Your task to perform on an android device: change the clock display to analog Image 0: 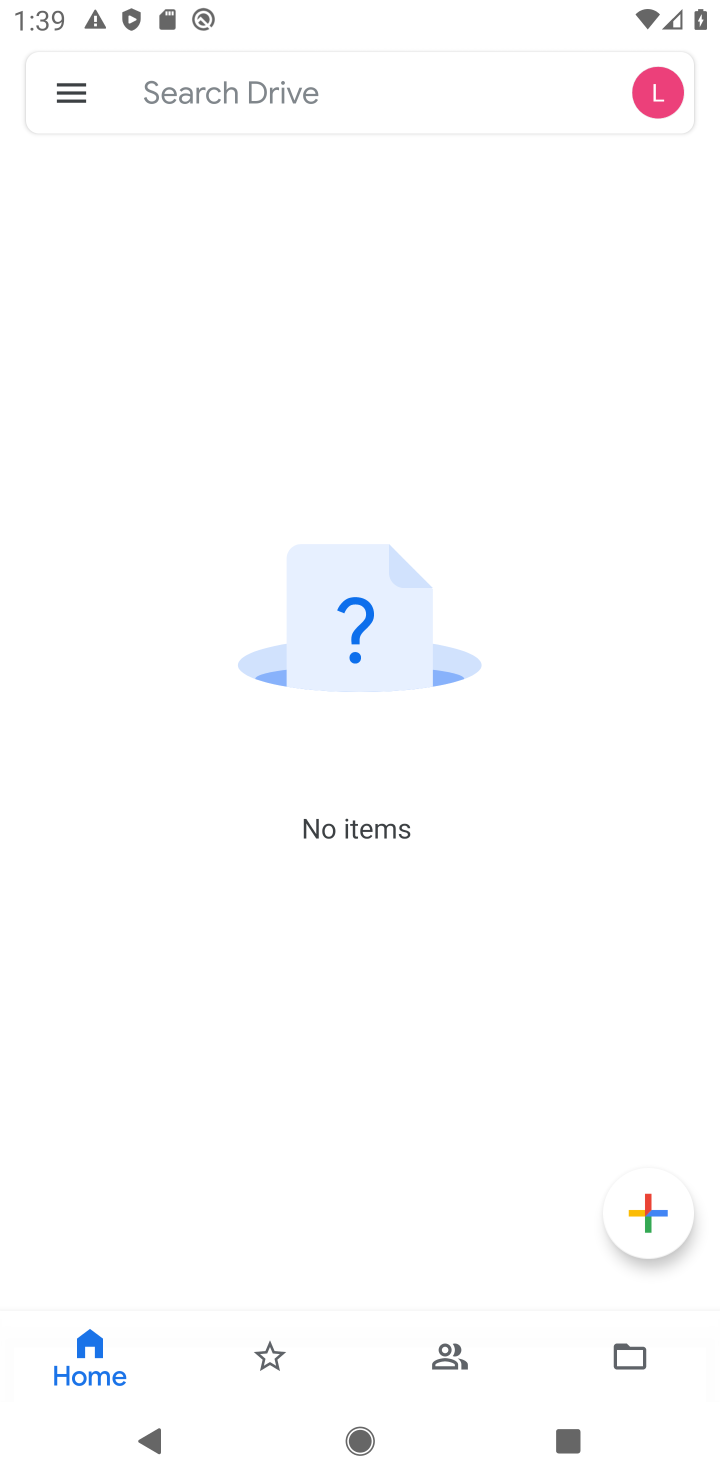
Step 0: press home button
Your task to perform on an android device: change the clock display to analog Image 1: 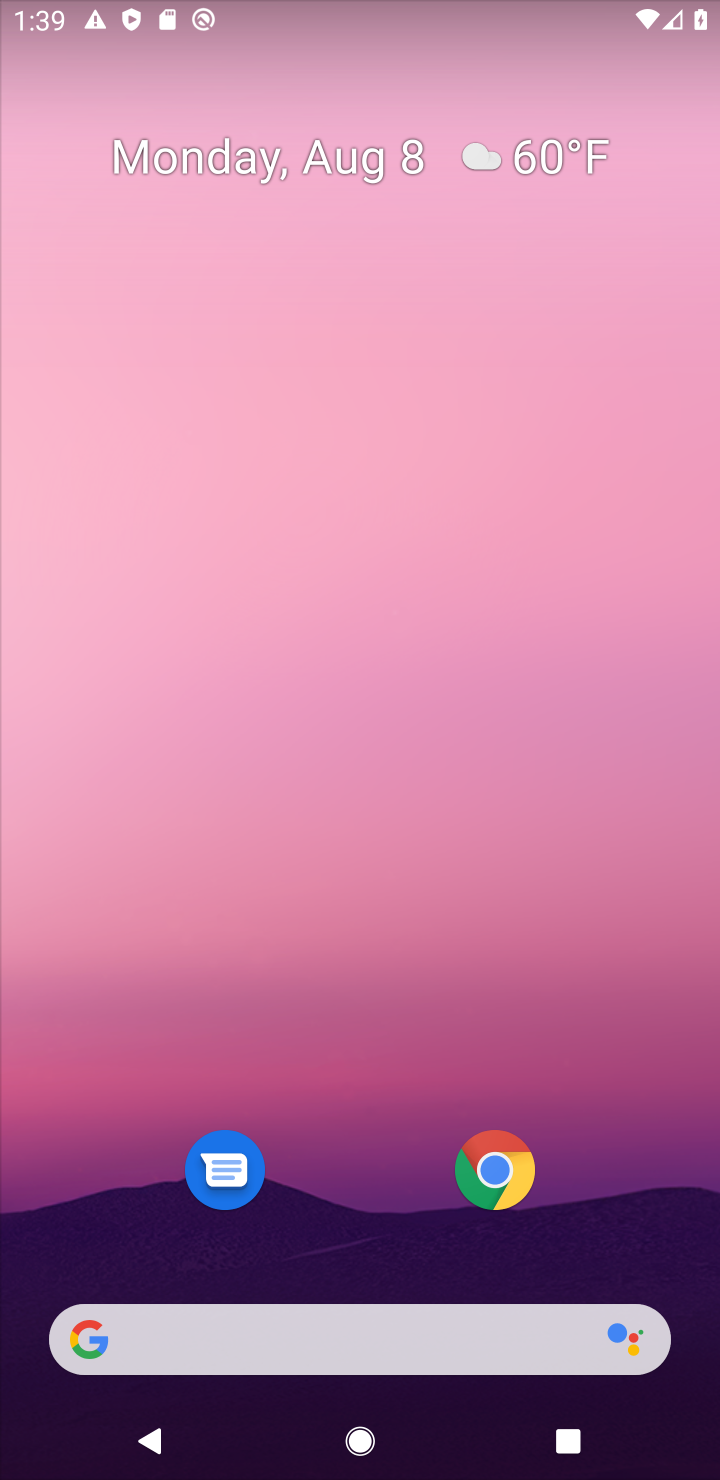
Step 1: drag from (325, 1204) to (346, 231)
Your task to perform on an android device: change the clock display to analog Image 2: 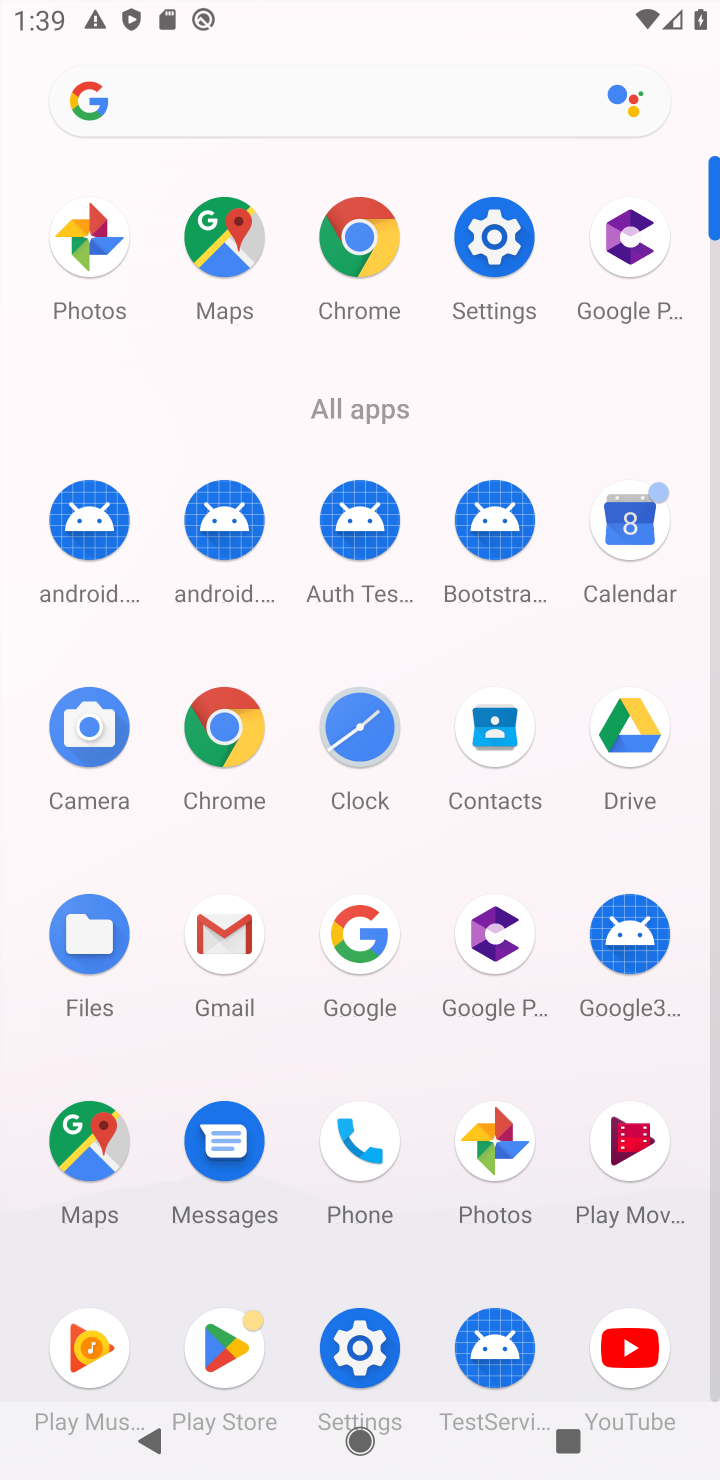
Step 2: click (377, 748)
Your task to perform on an android device: change the clock display to analog Image 3: 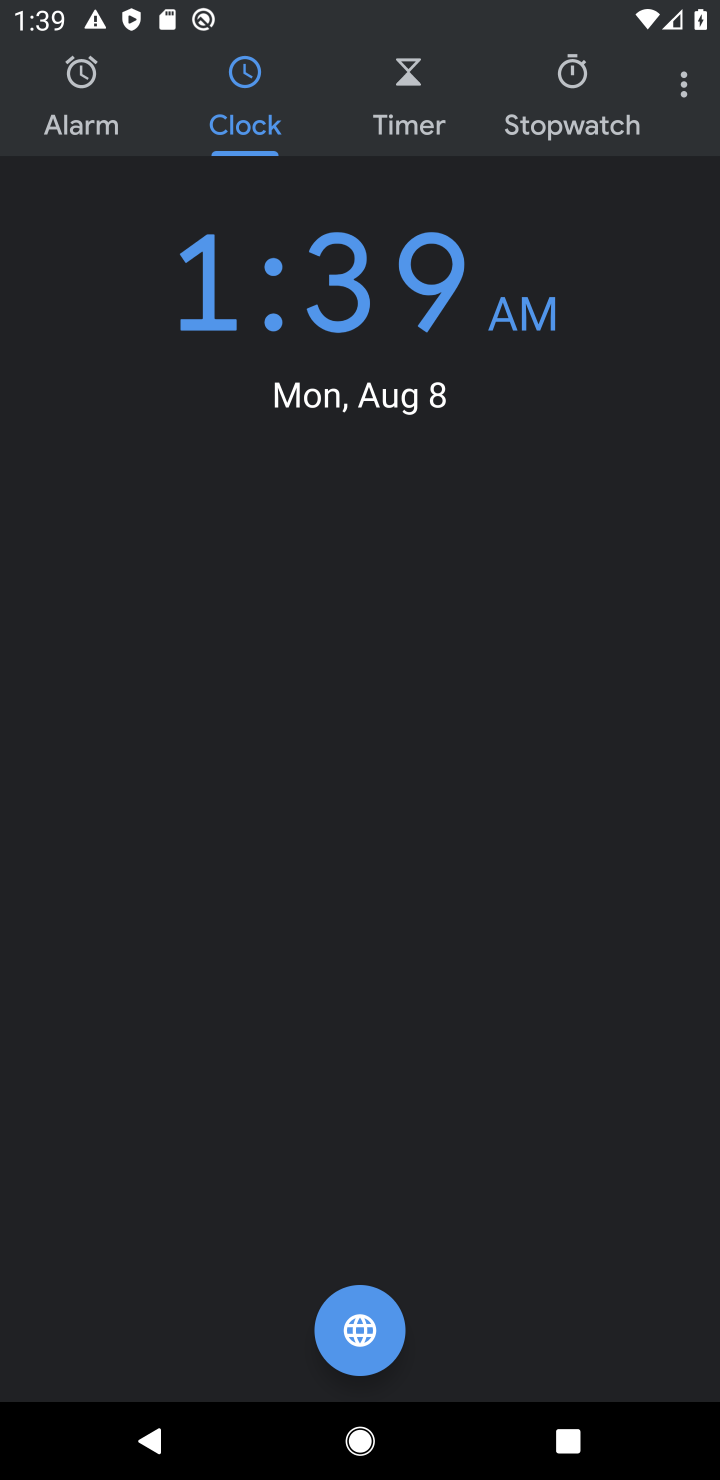
Step 3: click (677, 97)
Your task to perform on an android device: change the clock display to analog Image 4: 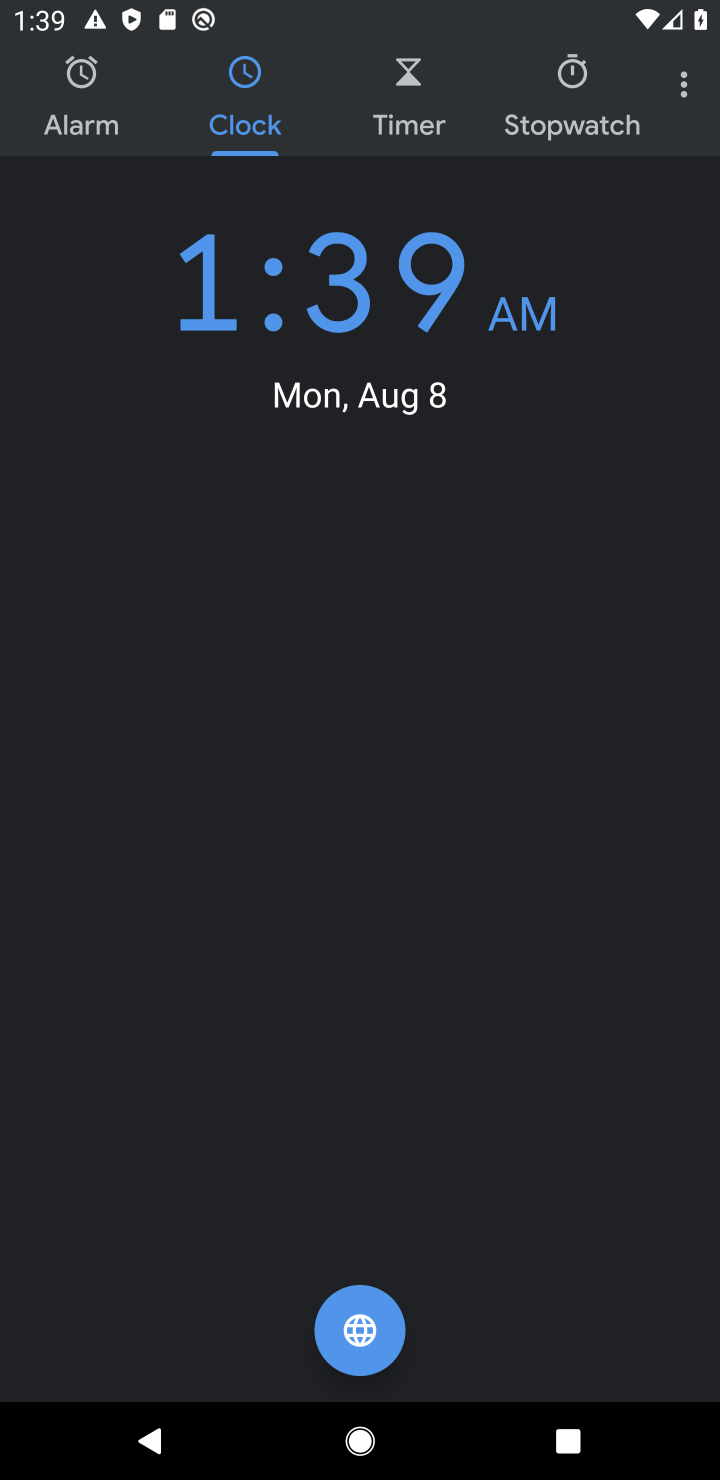
Step 4: click (677, 97)
Your task to perform on an android device: change the clock display to analog Image 5: 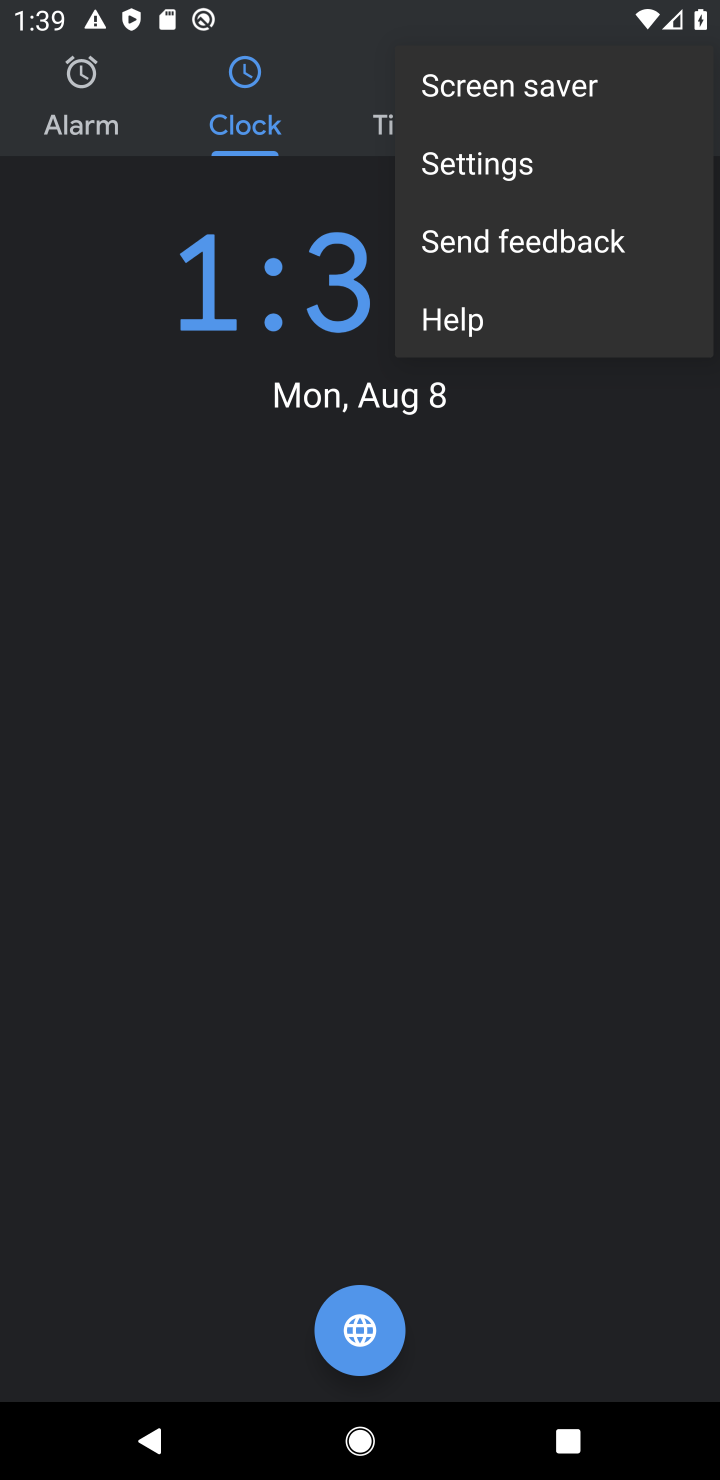
Step 5: click (447, 173)
Your task to perform on an android device: change the clock display to analog Image 6: 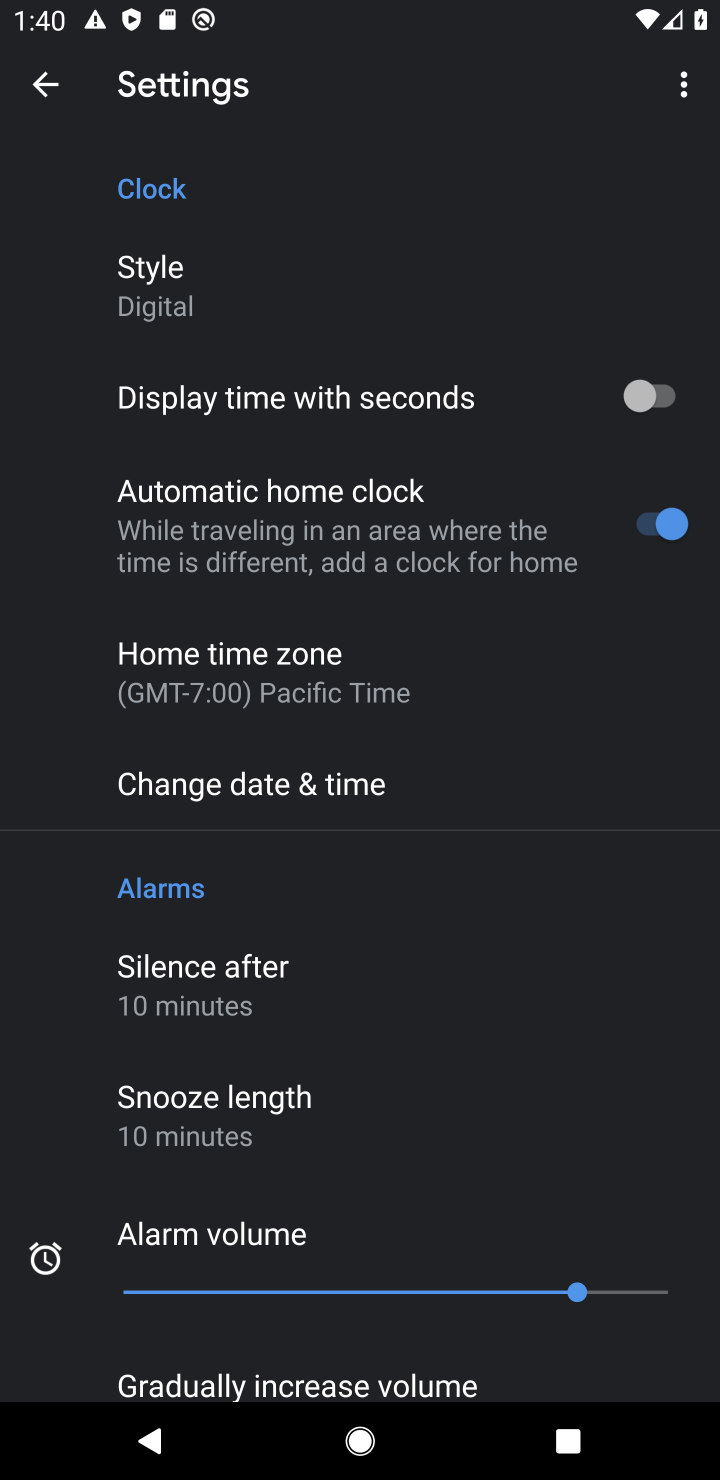
Step 6: click (184, 271)
Your task to perform on an android device: change the clock display to analog Image 7: 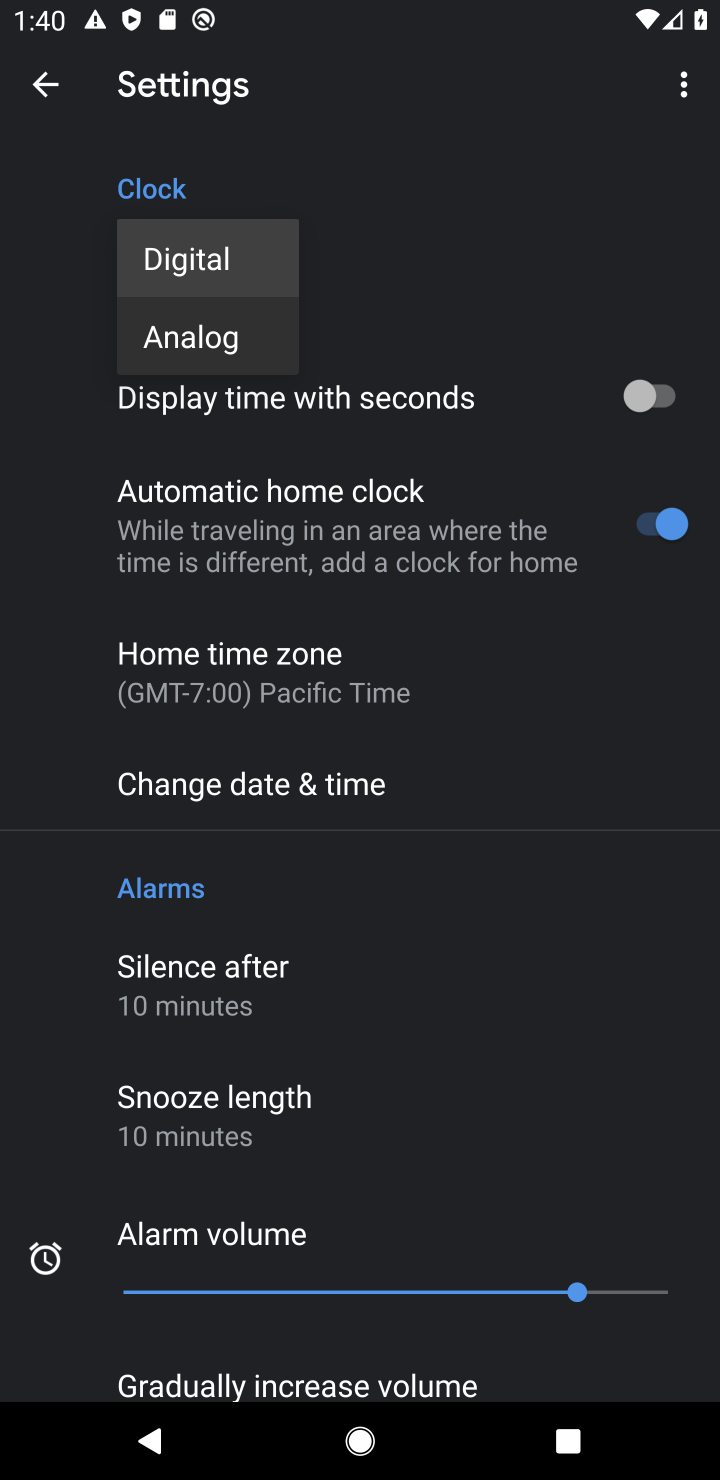
Step 7: click (212, 355)
Your task to perform on an android device: change the clock display to analog Image 8: 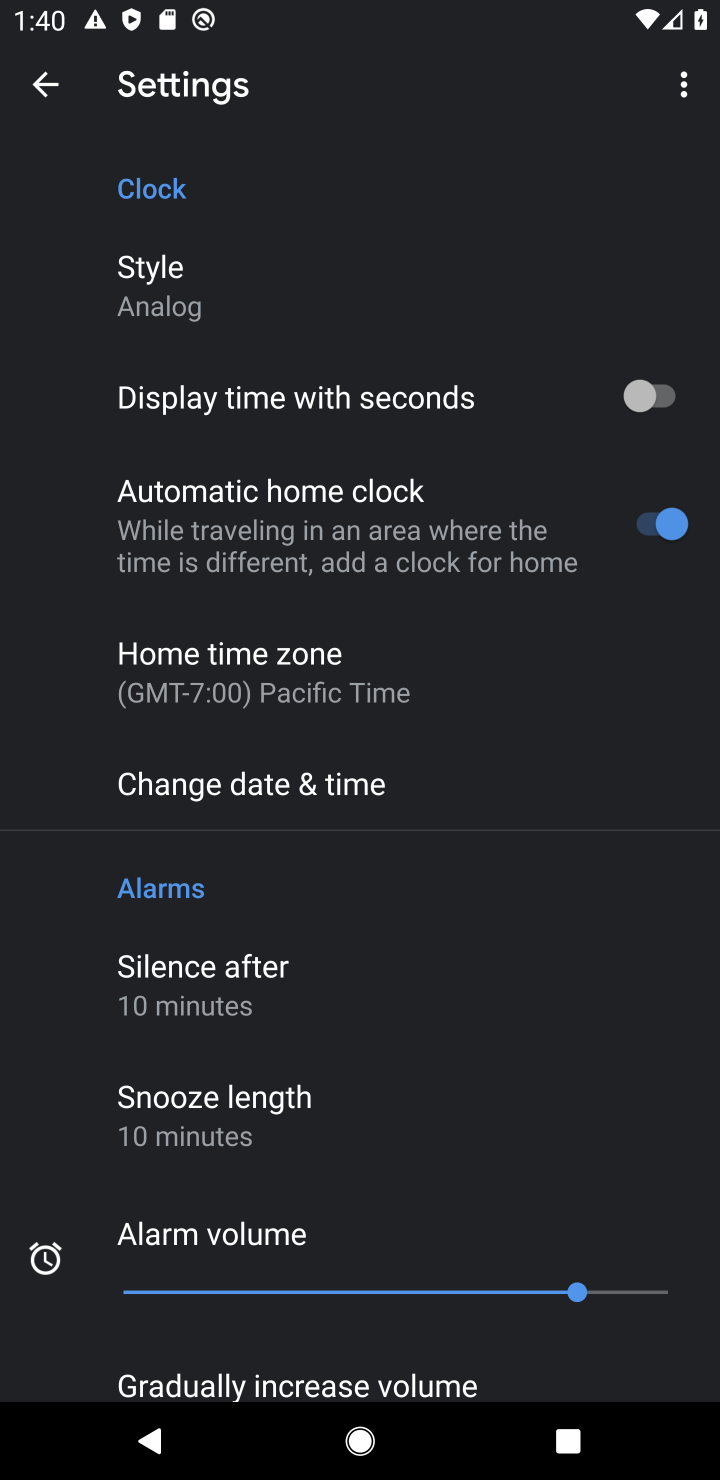
Step 8: task complete